Your task to perform on an android device: Open Yahoo.com Image 0: 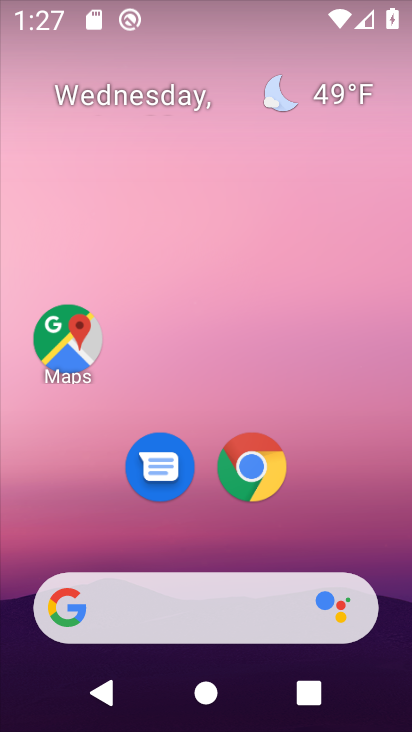
Step 0: click (245, 464)
Your task to perform on an android device: Open Yahoo.com Image 1: 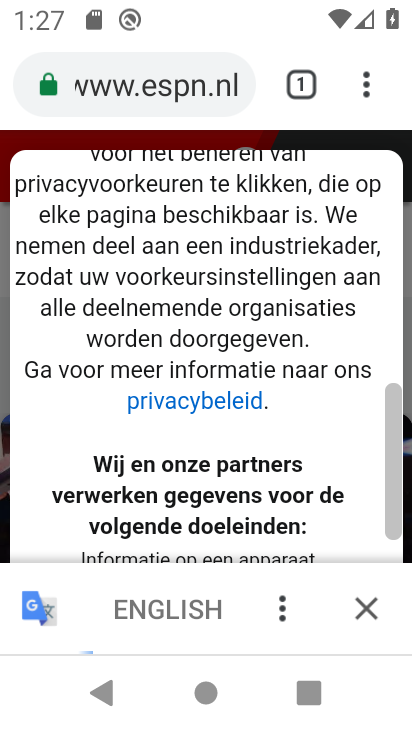
Step 1: click (126, 81)
Your task to perform on an android device: Open Yahoo.com Image 2: 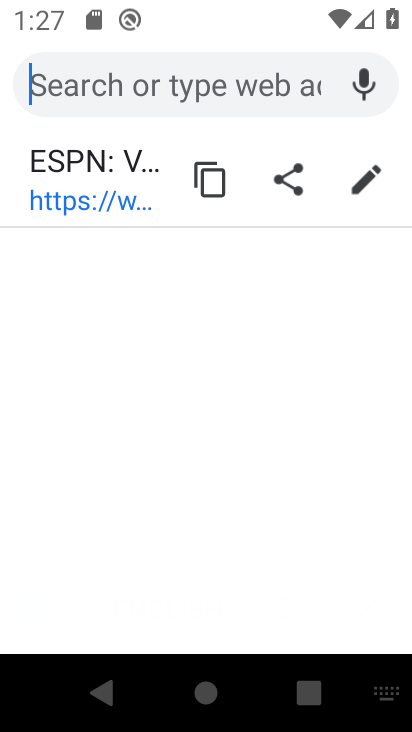
Step 2: type "yahoo.com"
Your task to perform on an android device: Open Yahoo.com Image 3: 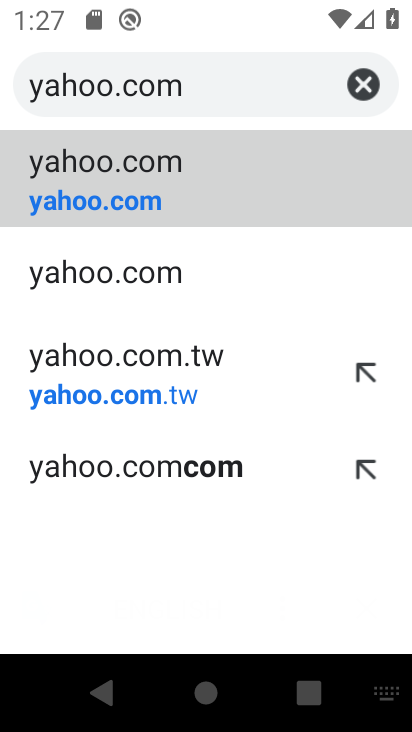
Step 3: click (69, 177)
Your task to perform on an android device: Open Yahoo.com Image 4: 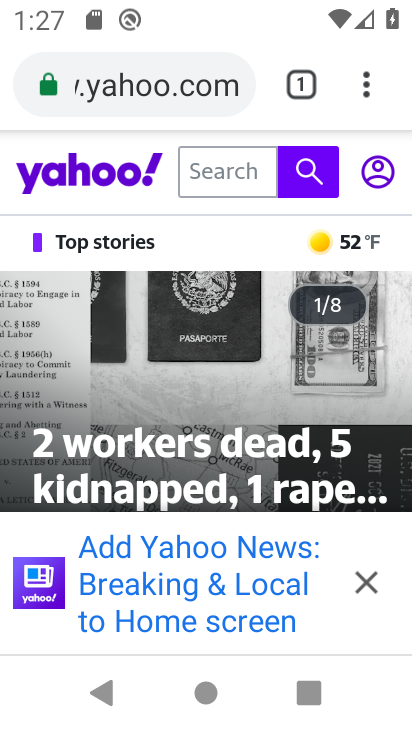
Step 4: task complete